Your task to perform on an android device: open a new tab in the chrome app Image 0: 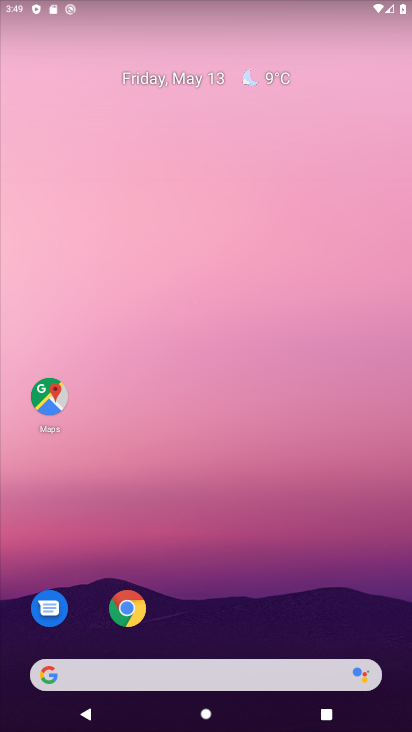
Step 0: drag from (225, 582) to (206, 139)
Your task to perform on an android device: open a new tab in the chrome app Image 1: 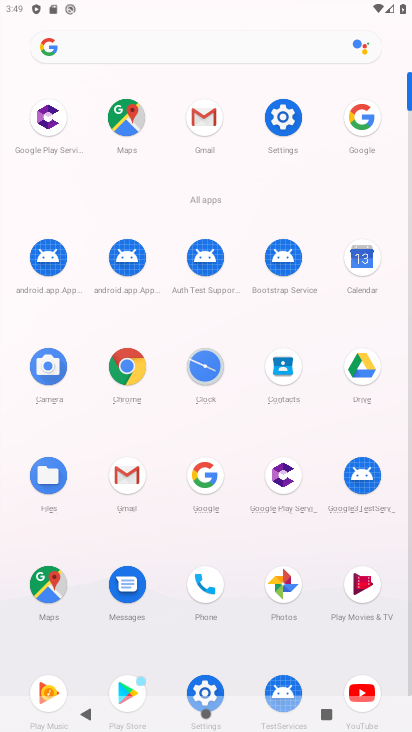
Step 1: click (134, 363)
Your task to perform on an android device: open a new tab in the chrome app Image 2: 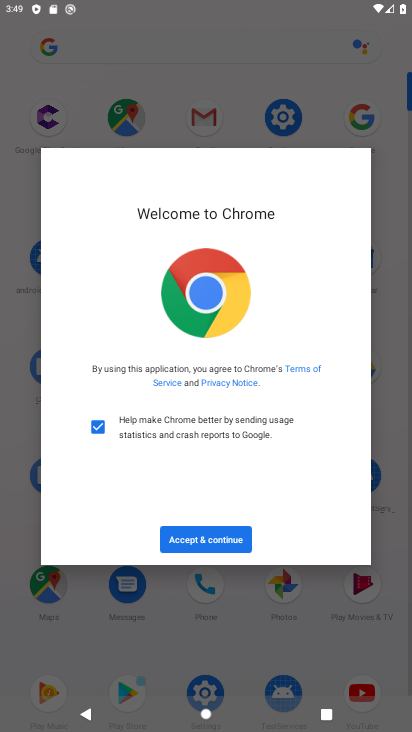
Step 2: click (217, 536)
Your task to perform on an android device: open a new tab in the chrome app Image 3: 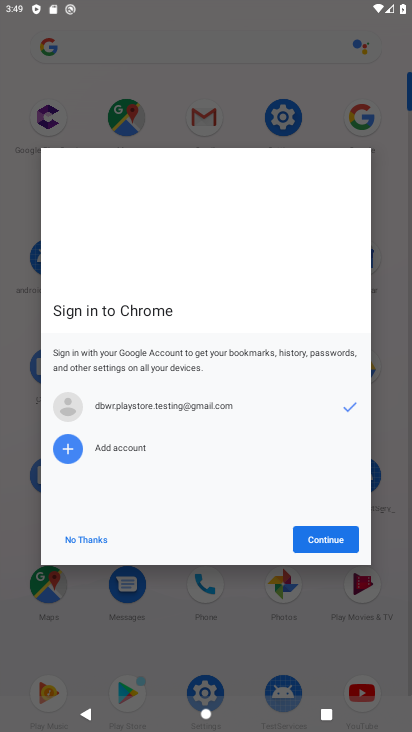
Step 3: click (327, 535)
Your task to perform on an android device: open a new tab in the chrome app Image 4: 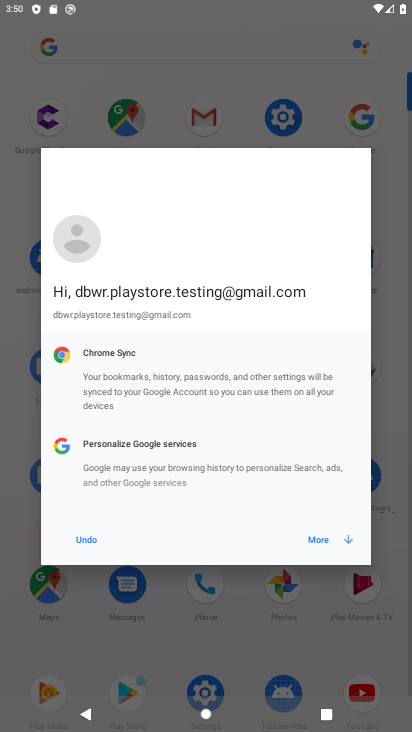
Step 4: click (330, 540)
Your task to perform on an android device: open a new tab in the chrome app Image 5: 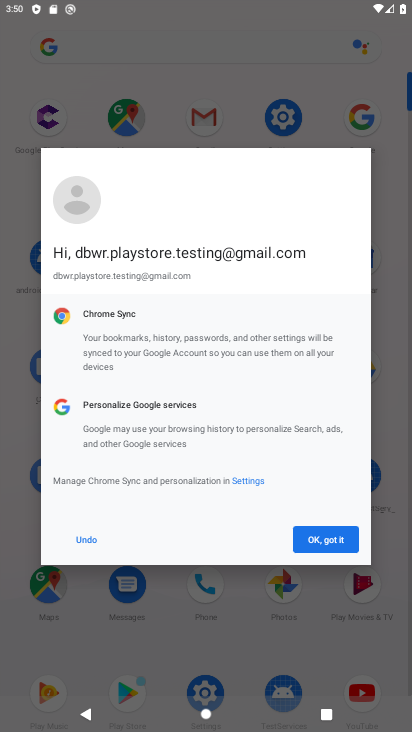
Step 5: click (317, 542)
Your task to perform on an android device: open a new tab in the chrome app Image 6: 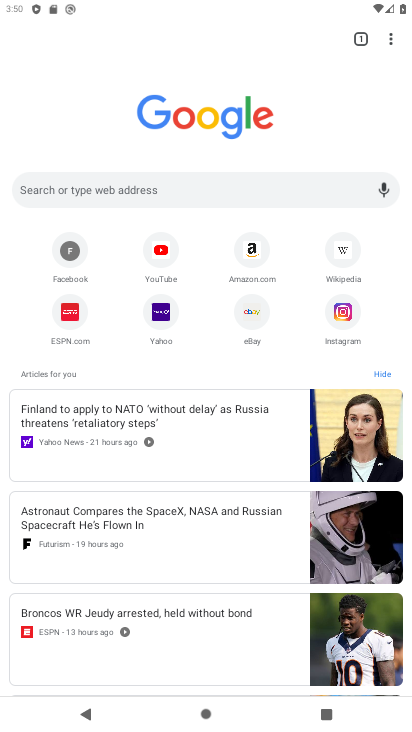
Step 6: click (361, 38)
Your task to perform on an android device: open a new tab in the chrome app Image 7: 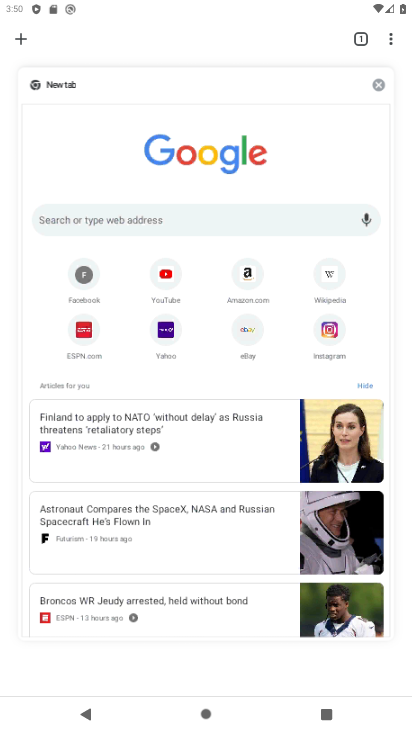
Step 7: click (17, 30)
Your task to perform on an android device: open a new tab in the chrome app Image 8: 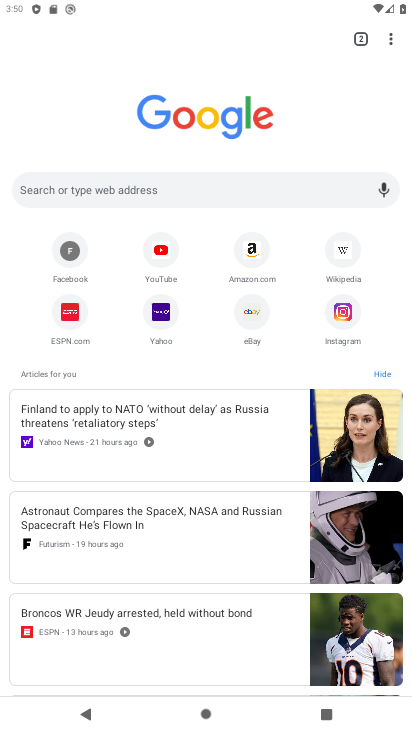
Step 8: task complete